Your task to perform on an android device: Open the Play Movies app and select the watchlist tab. Image 0: 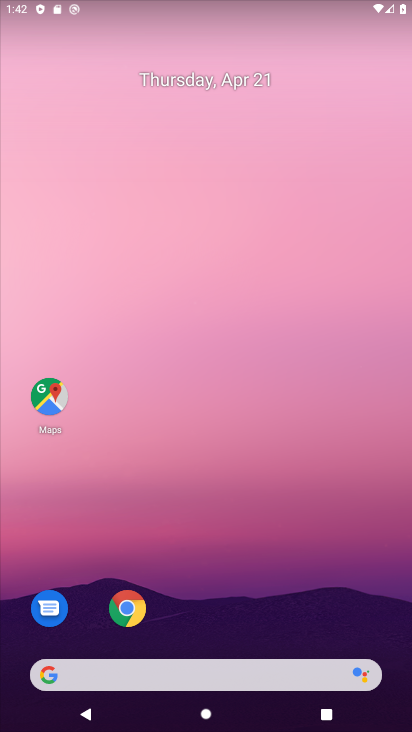
Step 0: drag from (334, 530) to (388, 93)
Your task to perform on an android device: Open the Play Movies app and select the watchlist tab. Image 1: 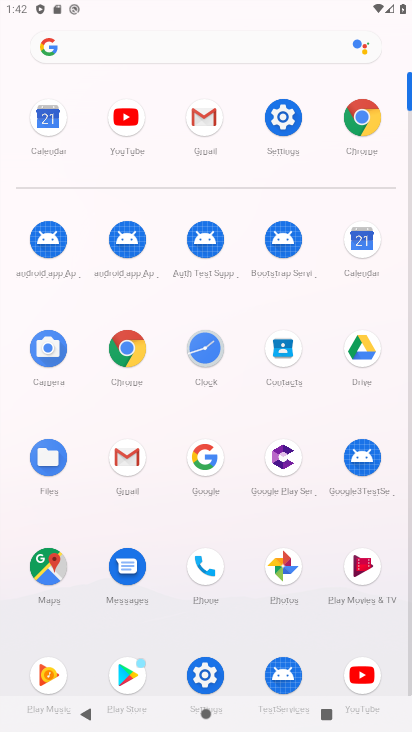
Step 1: drag from (410, 441) to (409, 476)
Your task to perform on an android device: Open the Play Movies app and select the watchlist tab. Image 2: 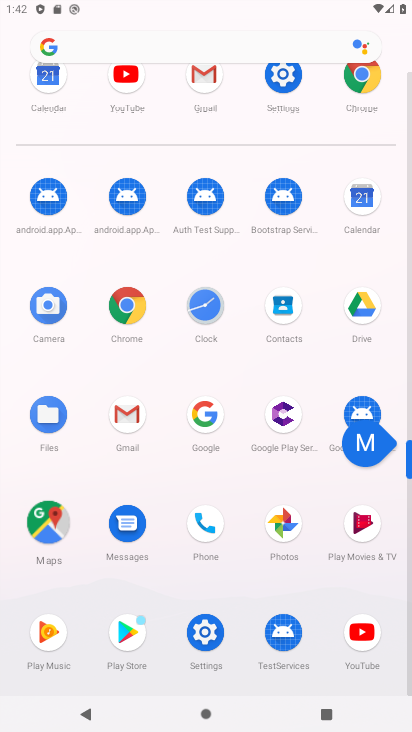
Step 2: click (361, 536)
Your task to perform on an android device: Open the Play Movies app and select the watchlist tab. Image 3: 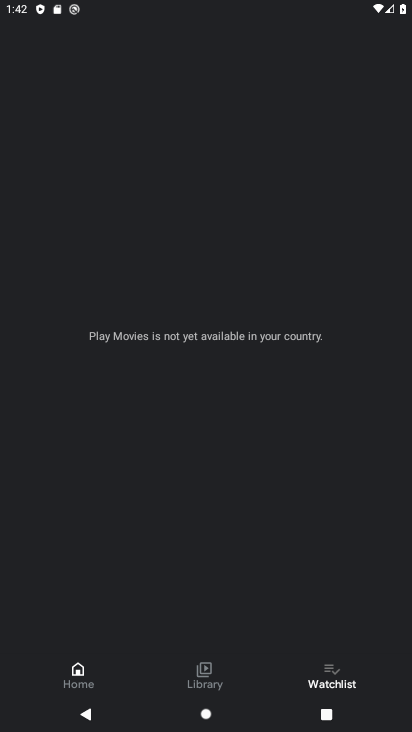
Step 3: click (363, 533)
Your task to perform on an android device: Open the Play Movies app and select the watchlist tab. Image 4: 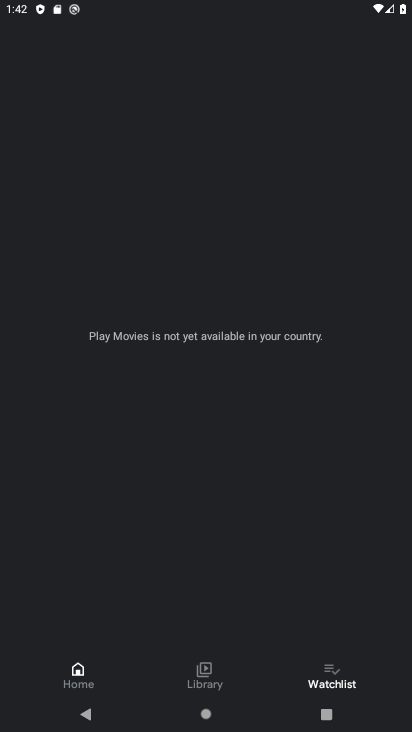
Step 4: click (321, 678)
Your task to perform on an android device: Open the Play Movies app and select the watchlist tab. Image 5: 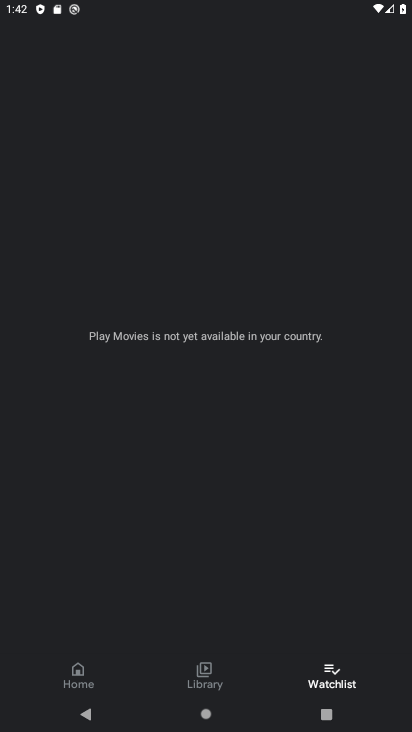
Step 5: task complete